Your task to perform on an android device: add a contact Image 0: 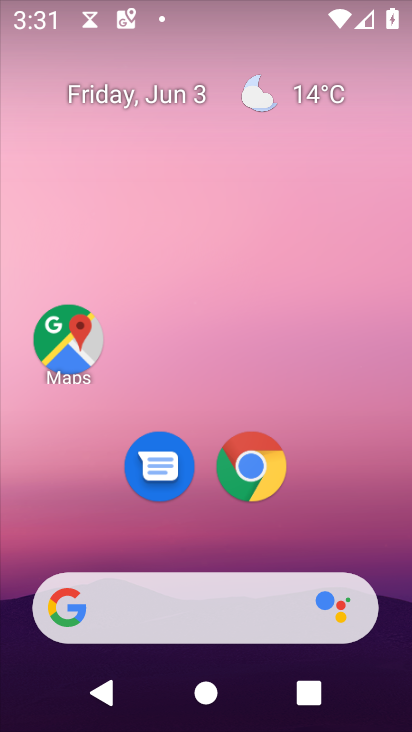
Step 0: drag from (358, 483) to (310, 168)
Your task to perform on an android device: add a contact Image 1: 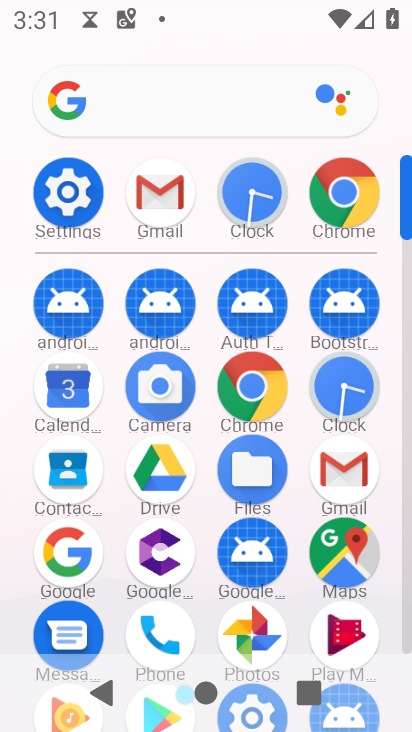
Step 1: click (49, 485)
Your task to perform on an android device: add a contact Image 2: 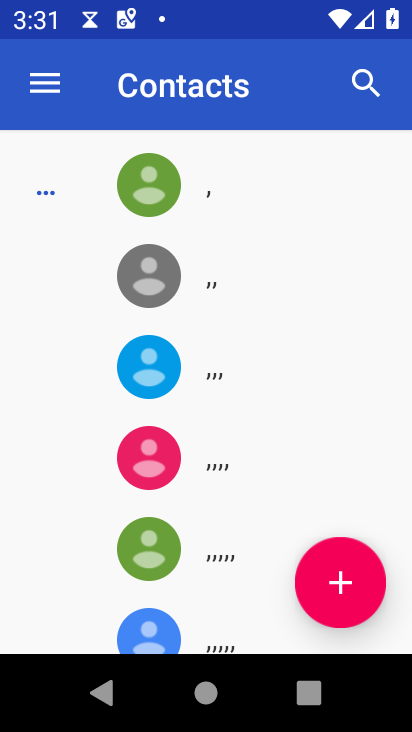
Step 2: click (331, 561)
Your task to perform on an android device: add a contact Image 3: 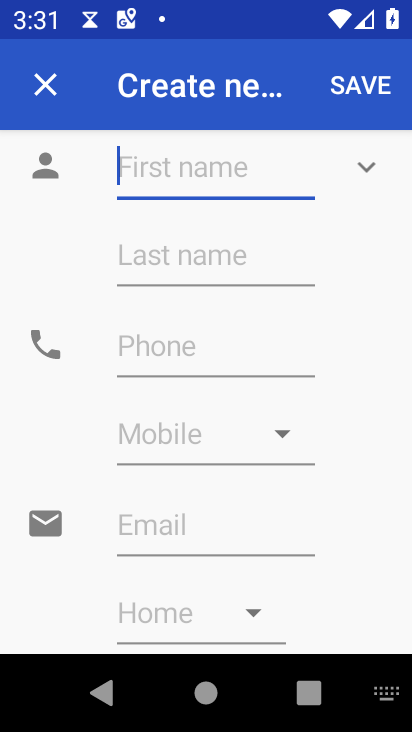
Step 3: type "sss"
Your task to perform on an android device: add a contact Image 4: 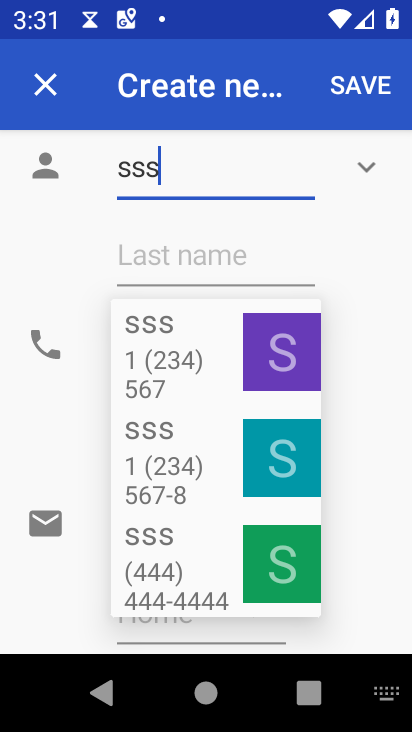
Step 4: click (34, 74)
Your task to perform on an android device: add a contact Image 5: 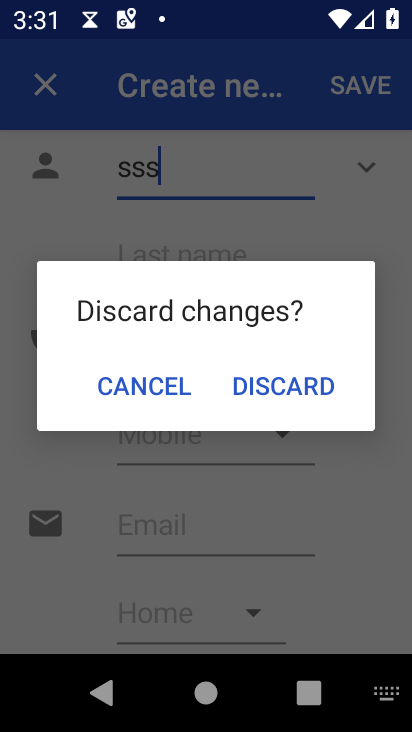
Step 5: click (275, 376)
Your task to perform on an android device: add a contact Image 6: 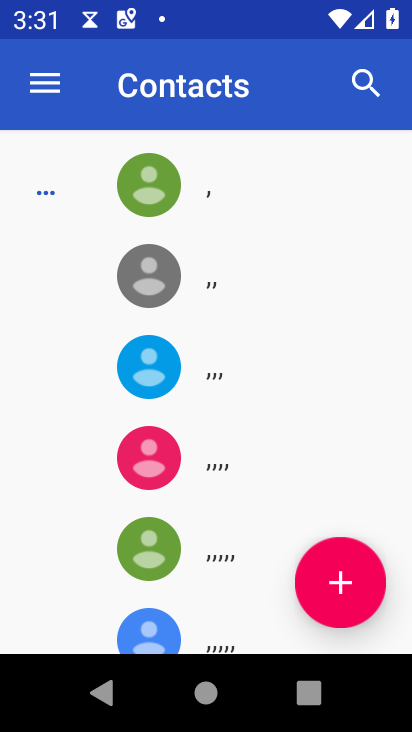
Step 6: click (329, 583)
Your task to perform on an android device: add a contact Image 7: 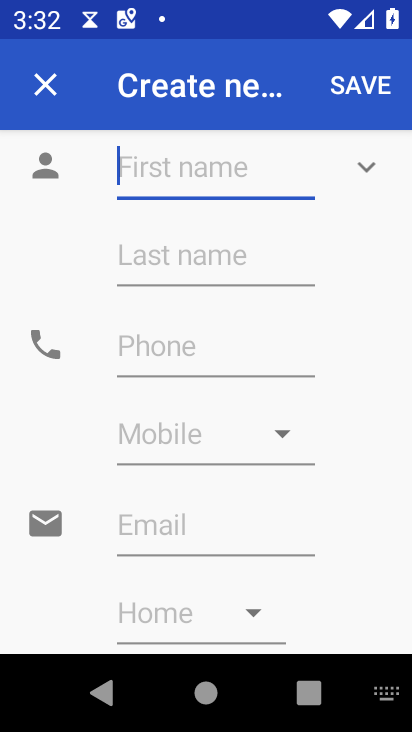
Step 7: type "fjjj"
Your task to perform on an android device: add a contact Image 8: 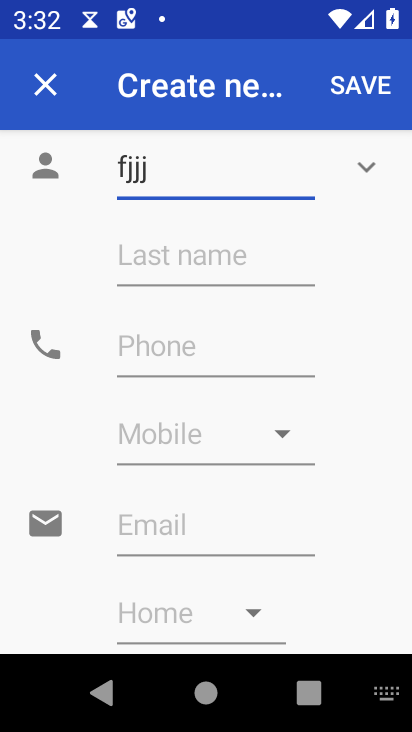
Step 8: click (127, 340)
Your task to perform on an android device: add a contact Image 9: 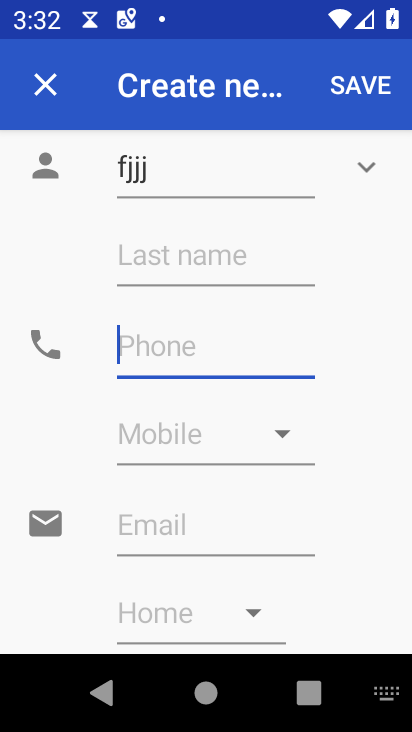
Step 9: type "7879754486"
Your task to perform on an android device: add a contact Image 10: 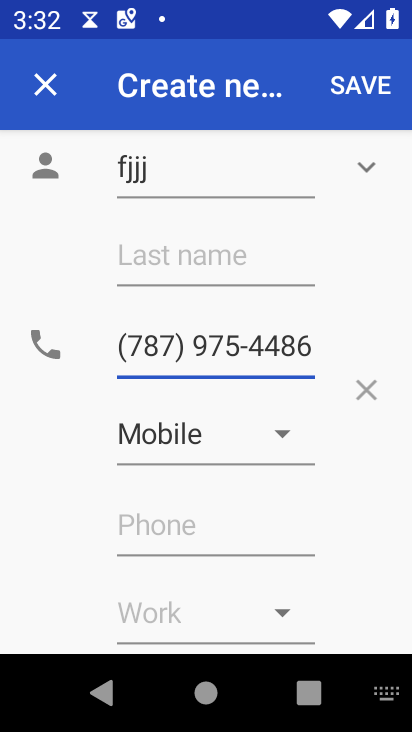
Step 10: click (362, 96)
Your task to perform on an android device: add a contact Image 11: 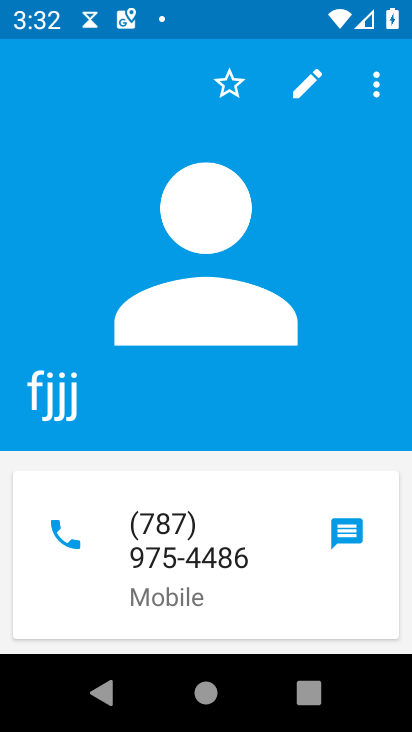
Step 11: task complete